Your task to perform on an android device: Set an alarm for 4pm Image 0: 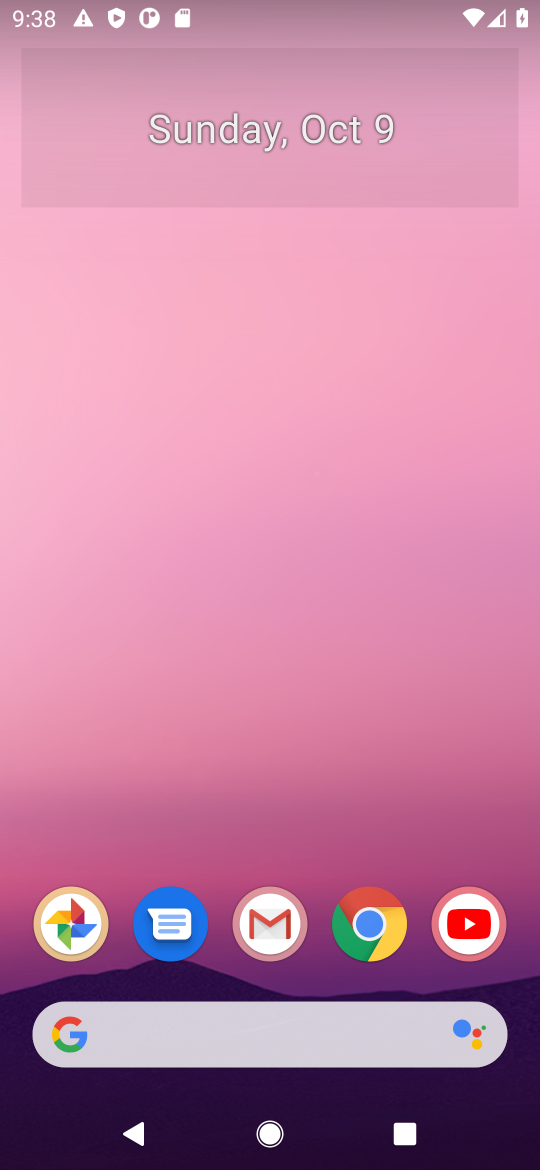
Step 0: drag from (297, 1072) to (157, 208)
Your task to perform on an android device: Set an alarm for 4pm Image 1: 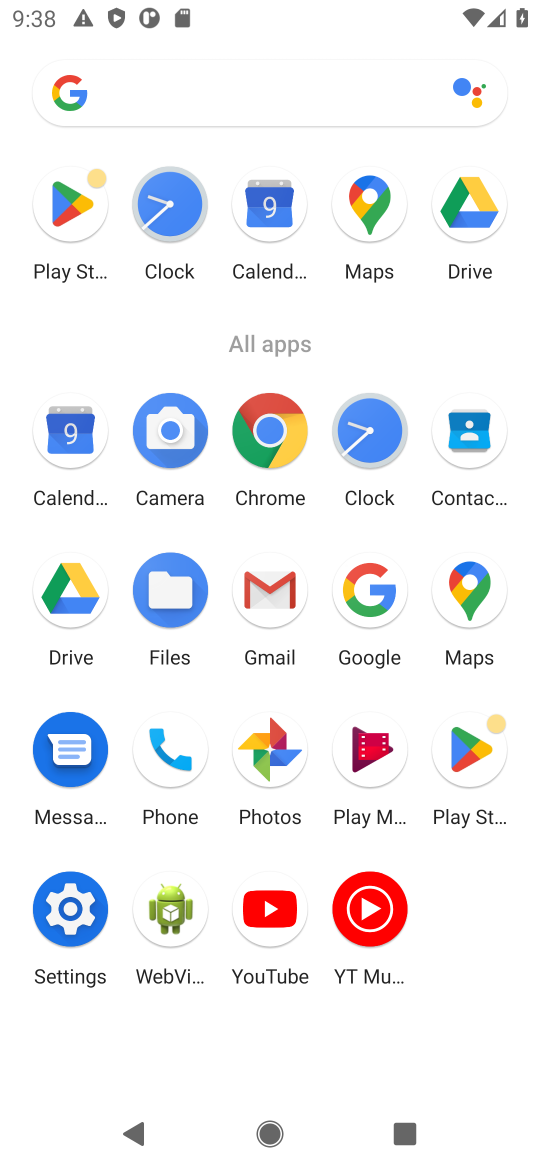
Step 1: click (371, 453)
Your task to perform on an android device: Set an alarm for 4pm Image 2: 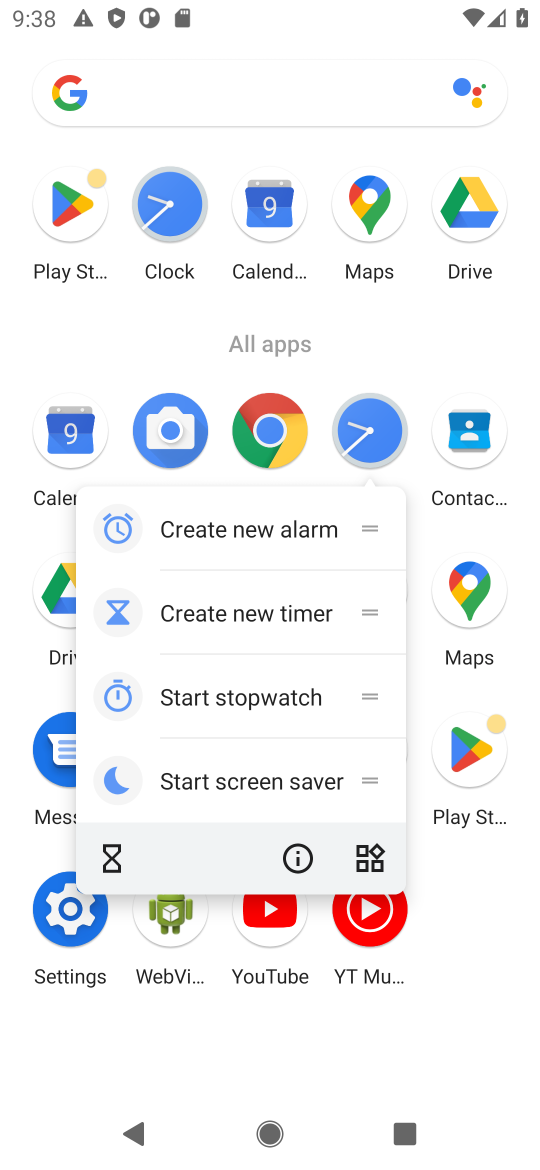
Step 2: click (371, 453)
Your task to perform on an android device: Set an alarm for 4pm Image 3: 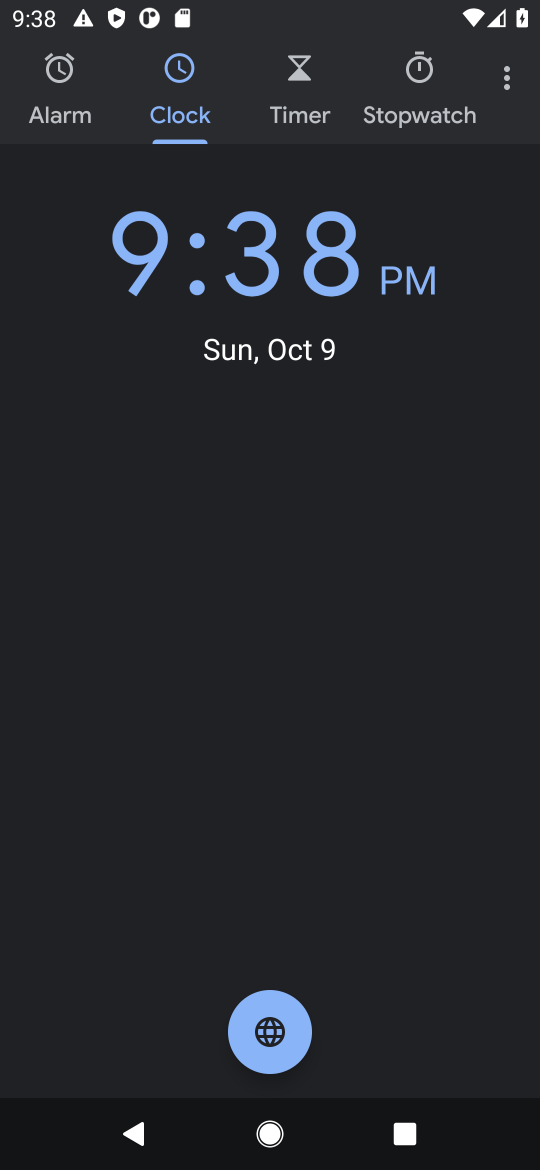
Step 3: click (74, 94)
Your task to perform on an android device: Set an alarm for 4pm Image 4: 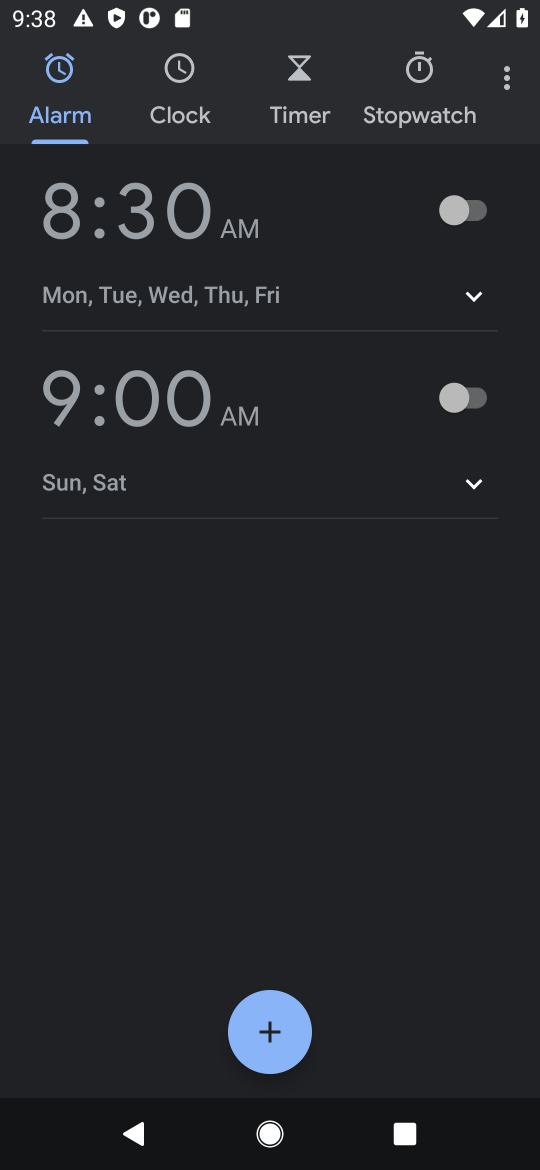
Step 4: click (246, 1017)
Your task to perform on an android device: Set an alarm for 4pm Image 5: 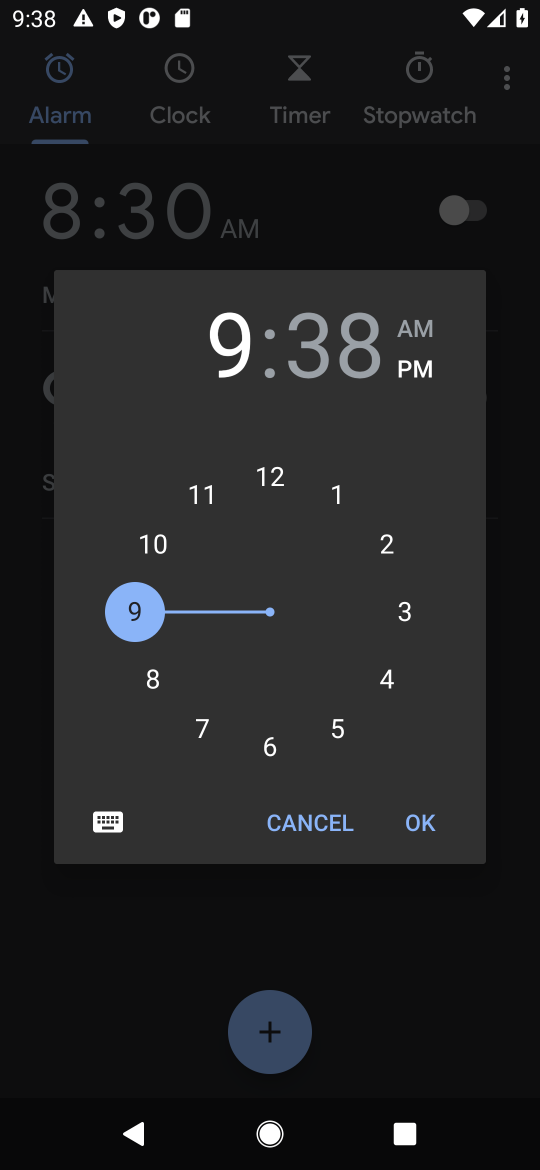
Step 5: click (389, 679)
Your task to perform on an android device: Set an alarm for 4pm Image 6: 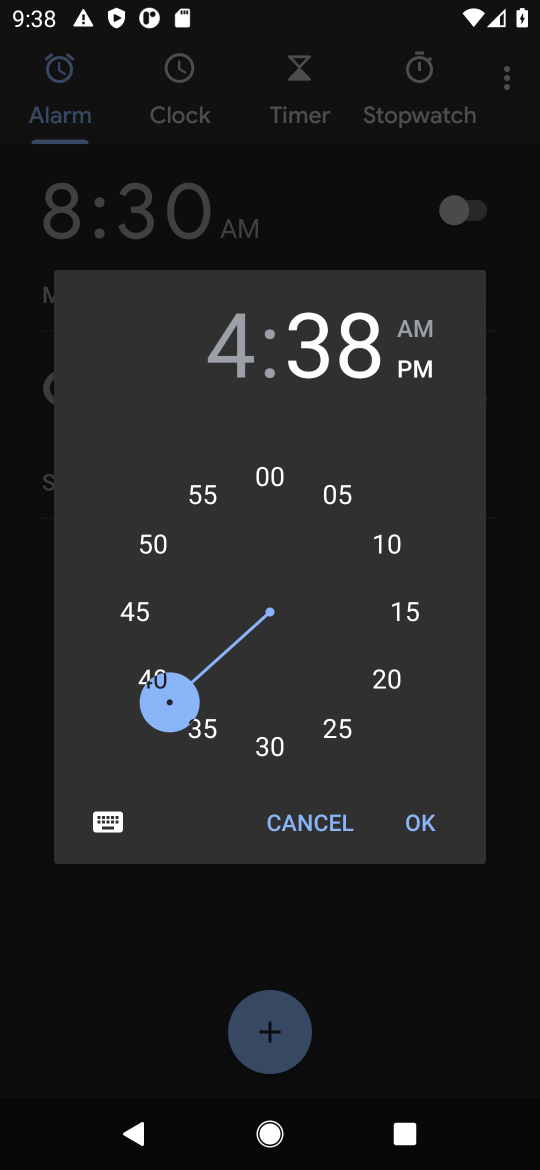
Step 6: click (273, 486)
Your task to perform on an android device: Set an alarm for 4pm Image 7: 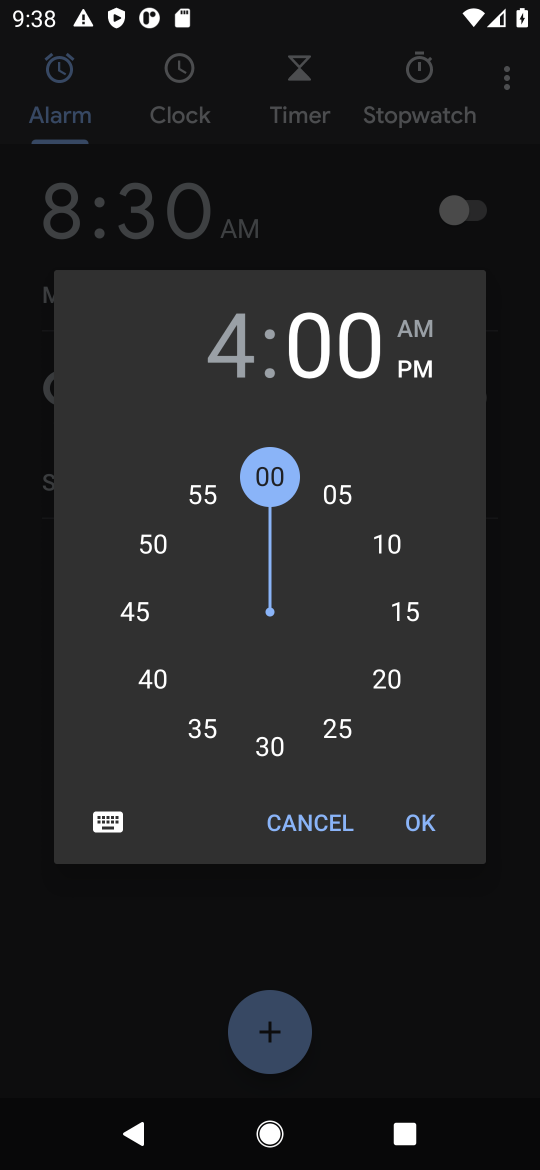
Step 7: click (444, 827)
Your task to perform on an android device: Set an alarm for 4pm Image 8: 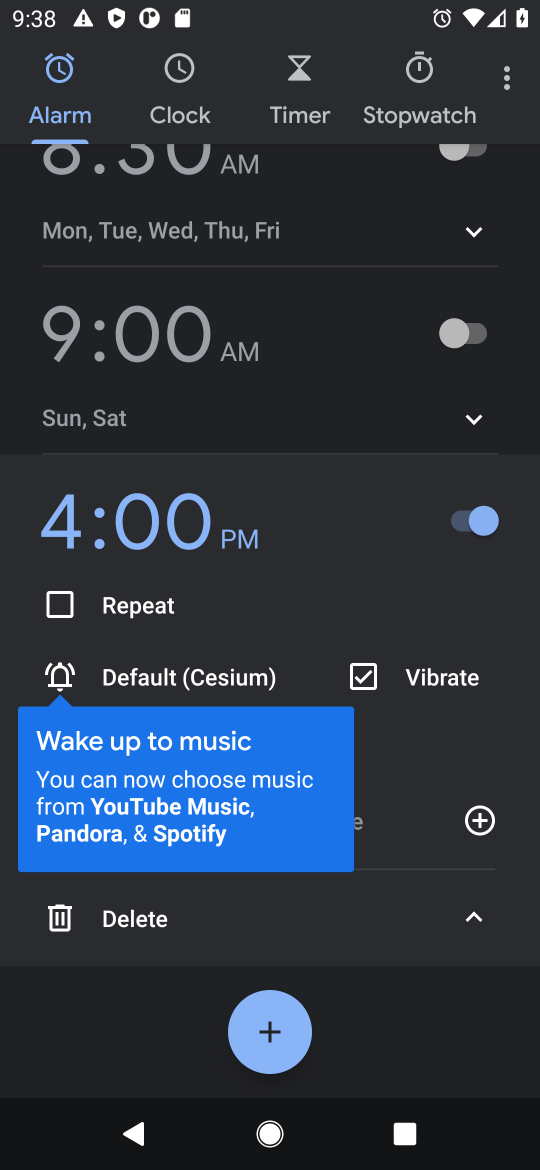
Step 8: task complete